Your task to perform on an android device: Turn off the flashlight Image 0: 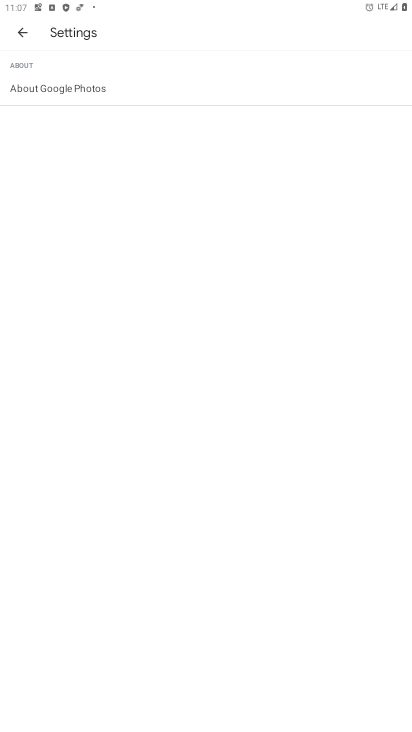
Step 0: press home button
Your task to perform on an android device: Turn off the flashlight Image 1: 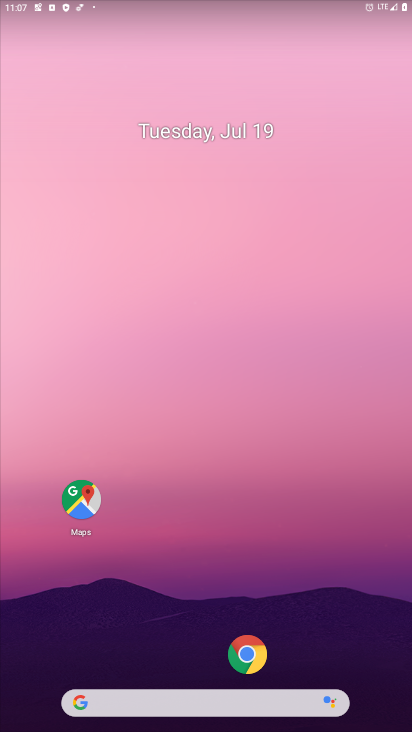
Step 1: drag from (157, 663) to (210, 13)
Your task to perform on an android device: Turn off the flashlight Image 2: 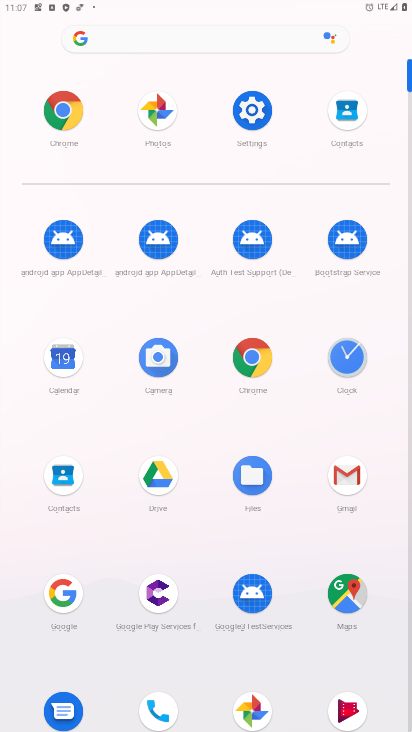
Step 2: click (245, 123)
Your task to perform on an android device: Turn off the flashlight Image 3: 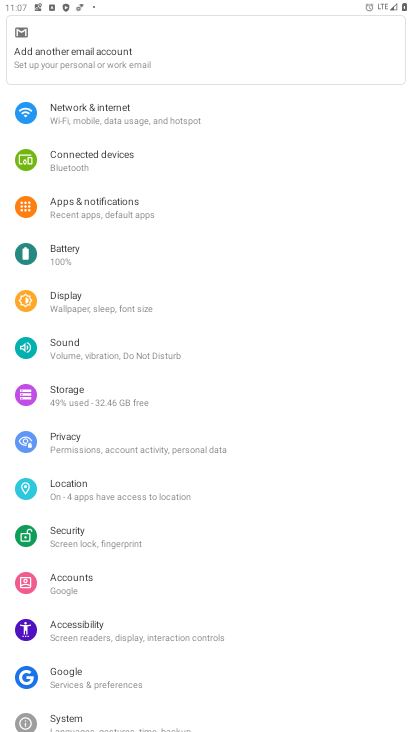
Step 3: task complete